Your task to perform on an android device: Go to eBay Image 0: 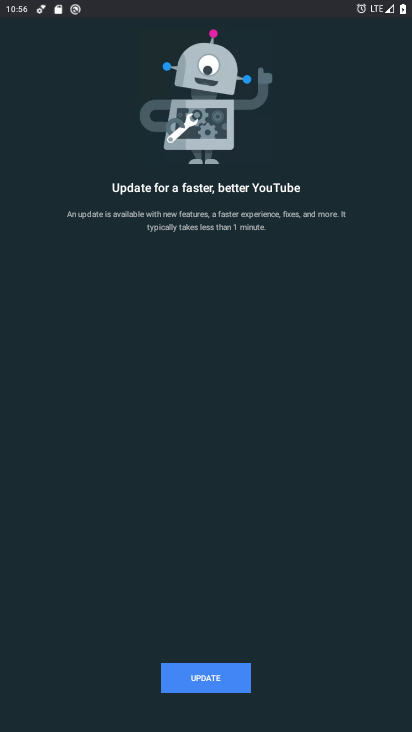
Step 0: press home button
Your task to perform on an android device: Go to eBay Image 1: 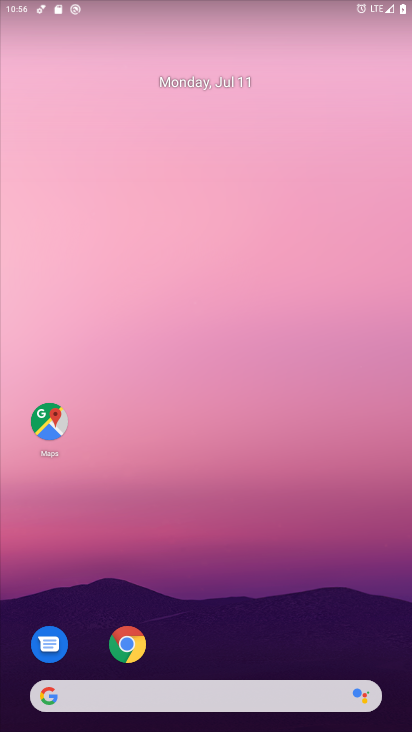
Step 1: drag from (203, 679) to (229, 253)
Your task to perform on an android device: Go to eBay Image 2: 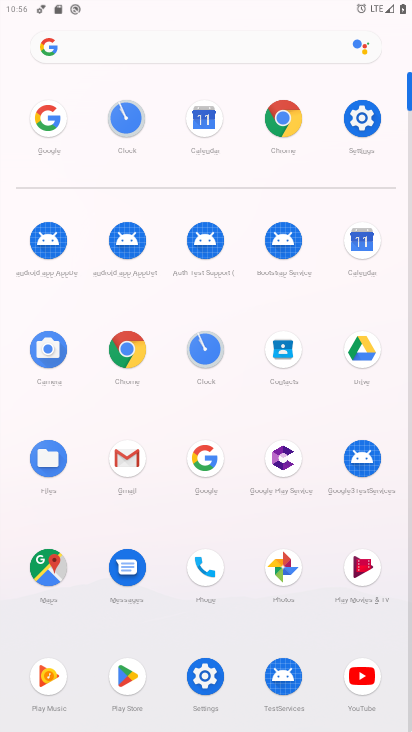
Step 2: click (279, 106)
Your task to perform on an android device: Go to eBay Image 3: 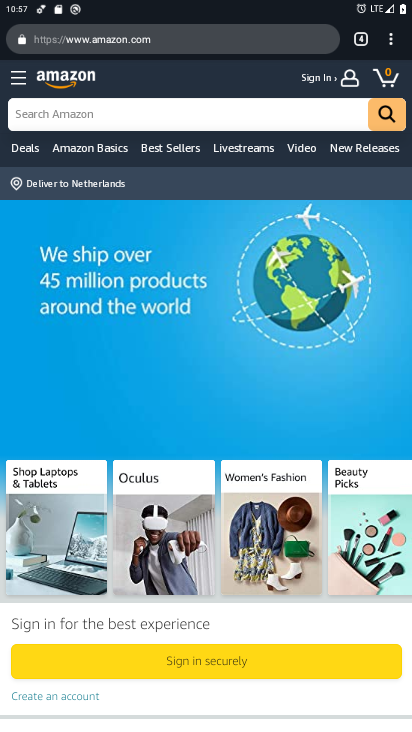
Step 3: click (390, 44)
Your task to perform on an android device: Go to eBay Image 4: 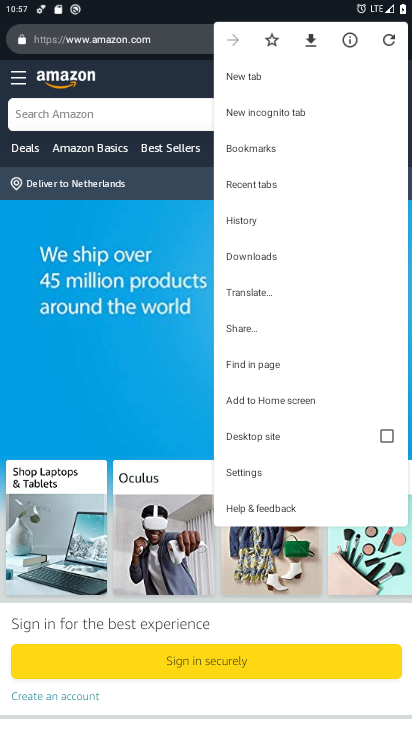
Step 4: click (273, 70)
Your task to perform on an android device: Go to eBay Image 5: 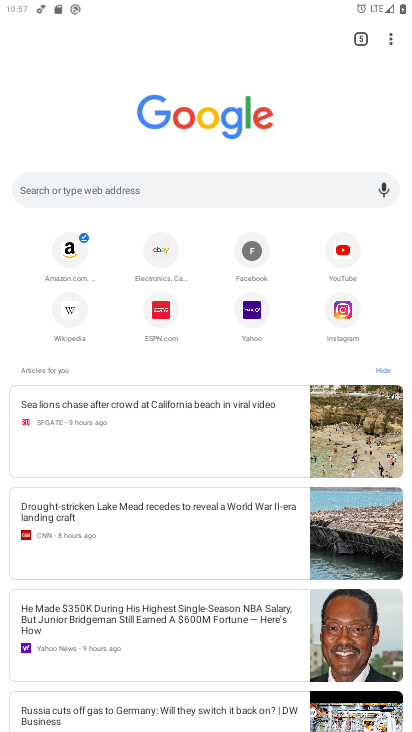
Step 5: click (166, 260)
Your task to perform on an android device: Go to eBay Image 6: 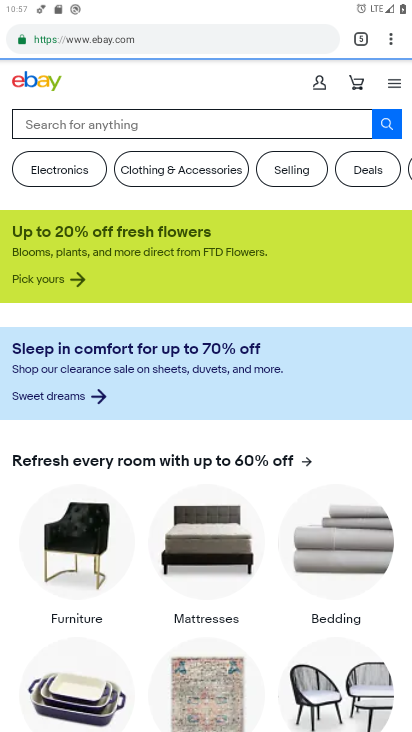
Step 6: task complete